Your task to perform on an android device: Search for pizza restaurants on Maps Image 0: 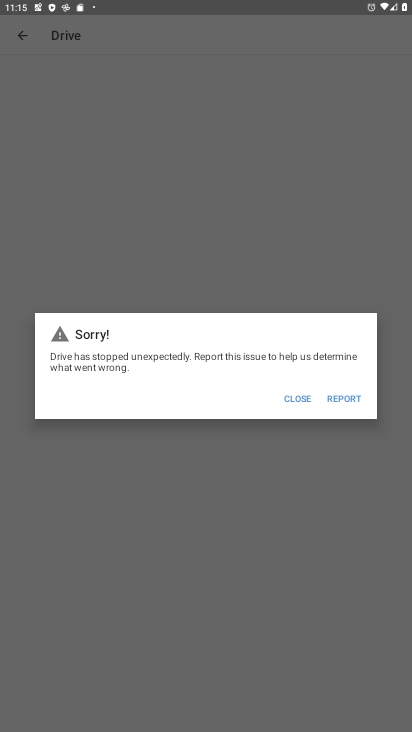
Step 0: press home button
Your task to perform on an android device: Search for pizza restaurants on Maps Image 1: 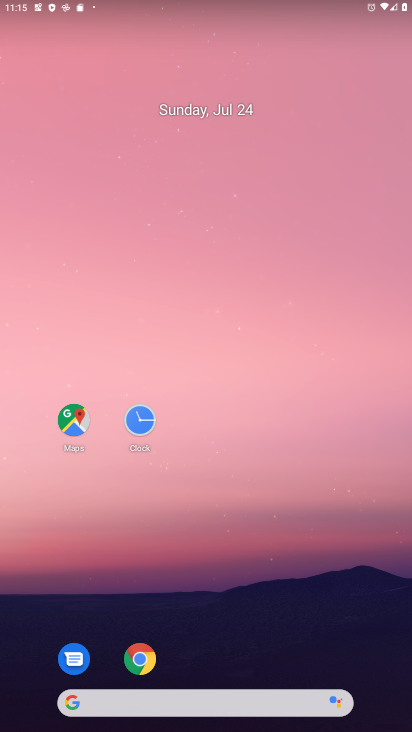
Step 1: click (69, 416)
Your task to perform on an android device: Search for pizza restaurants on Maps Image 2: 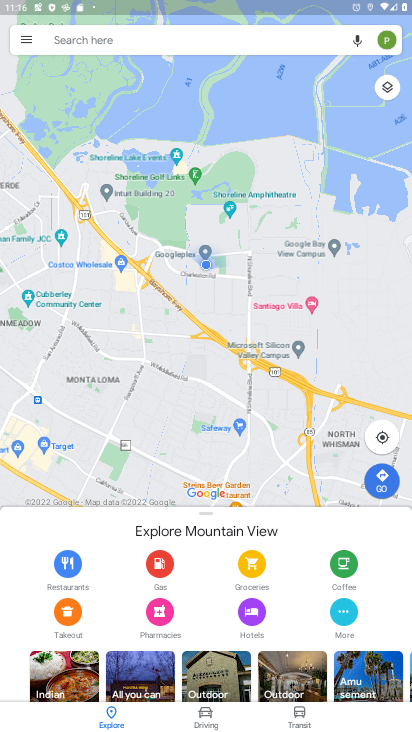
Step 2: click (168, 36)
Your task to perform on an android device: Search for pizza restaurants on Maps Image 3: 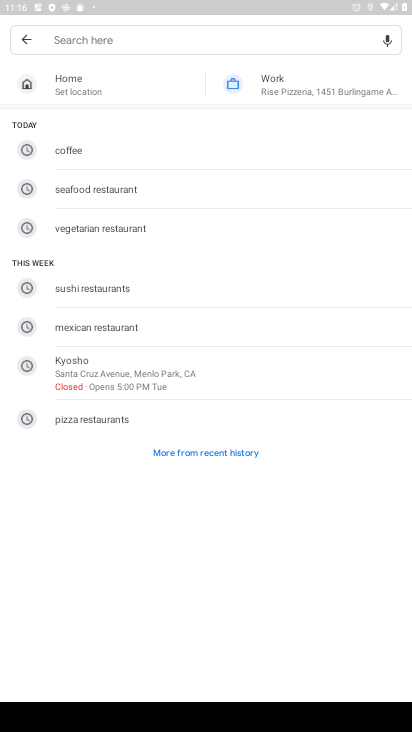
Step 3: type "pizza restaurants"
Your task to perform on an android device: Search for pizza restaurants on Maps Image 4: 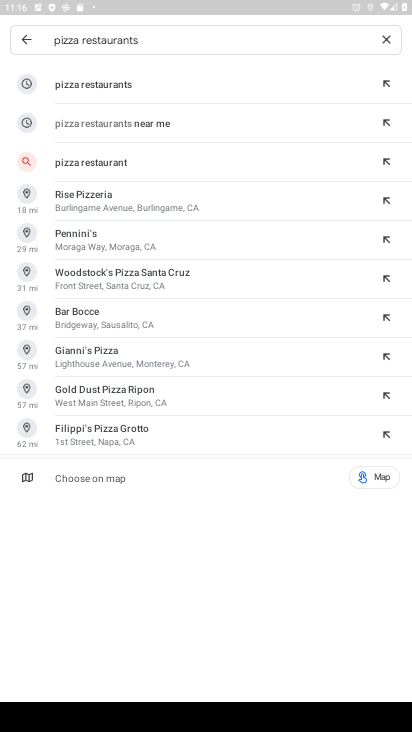
Step 4: click (121, 165)
Your task to perform on an android device: Search for pizza restaurants on Maps Image 5: 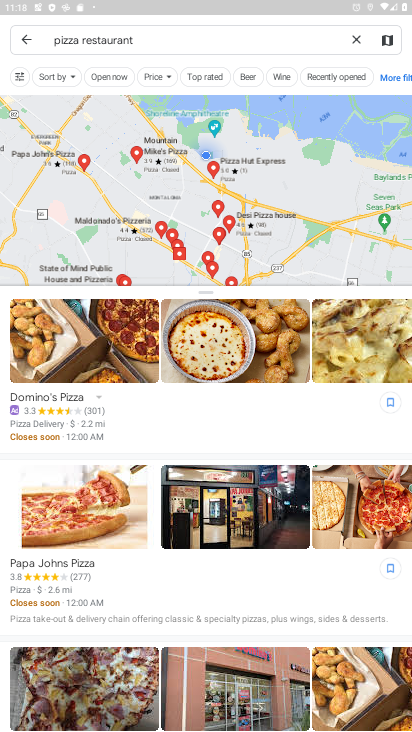
Step 5: task complete